Your task to perform on an android device: turn off picture-in-picture Image 0: 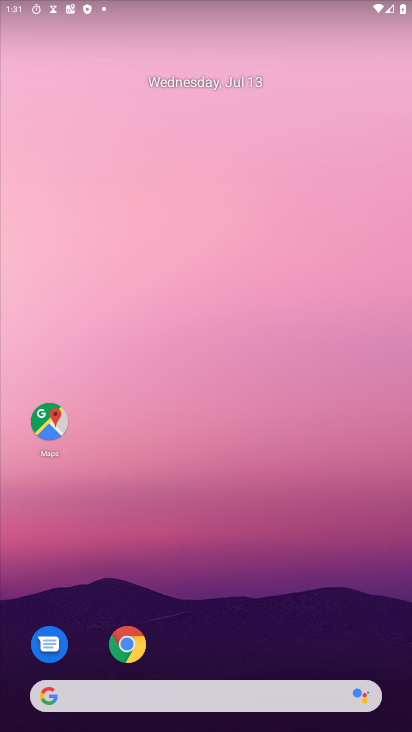
Step 0: press home button
Your task to perform on an android device: turn off picture-in-picture Image 1: 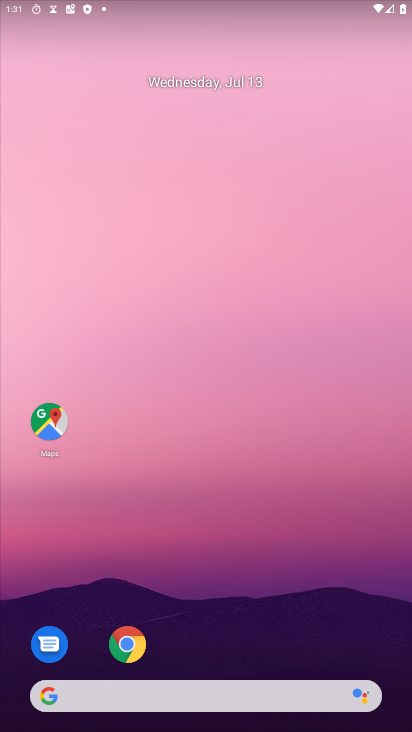
Step 1: click (117, 648)
Your task to perform on an android device: turn off picture-in-picture Image 2: 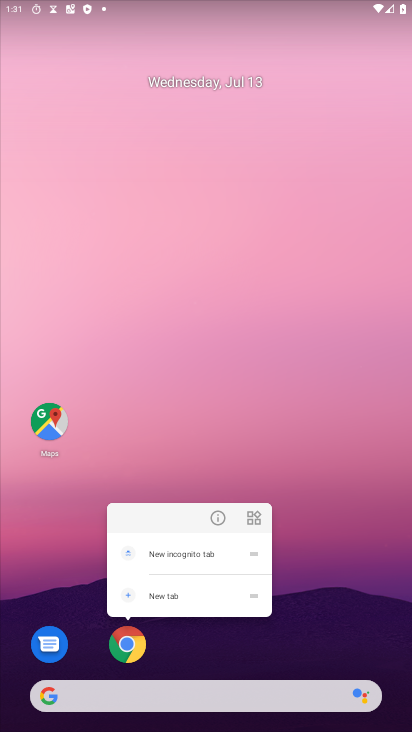
Step 2: click (218, 515)
Your task to perform on an android device: turn off picture-in-picture Image 3: 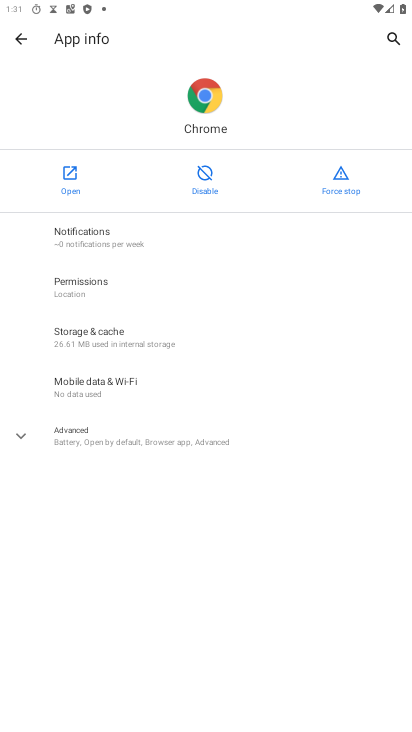
Step 3: click (17, 435)
Your task to perform on an android device: turn off picture-in-picture Image 4: 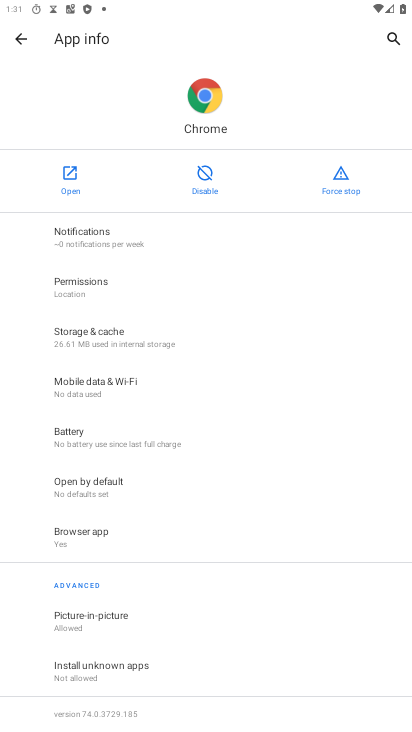
Step 4: click (103, 623)
Your task to perform on an android device: turn off picture-in-picture Image 5: 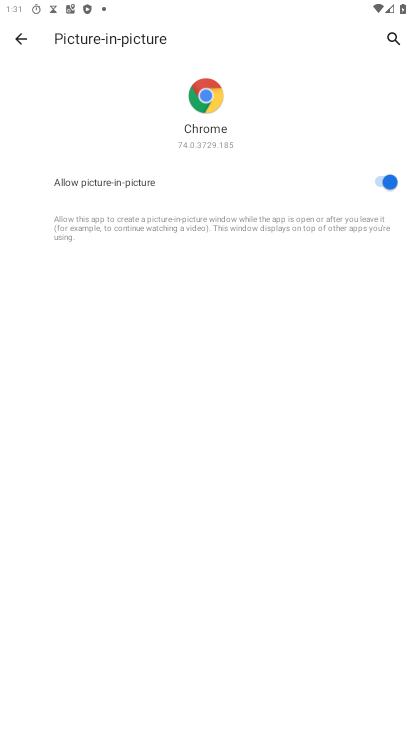
Step 5: click (384, 179)
Your task to perform on an android device: turn off picture-in-picture Image 6: 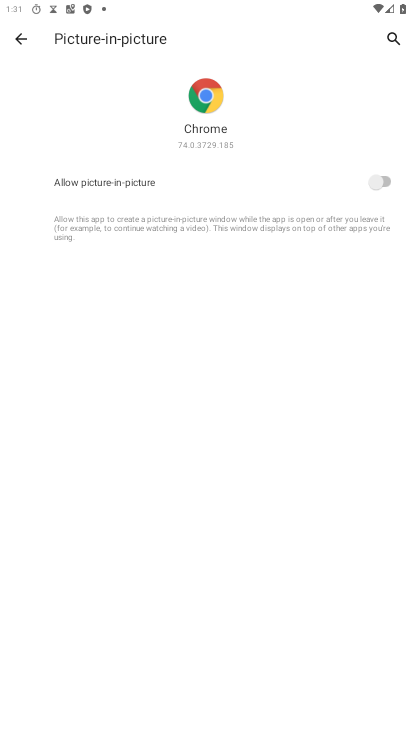
Step 6: task complete